Your task to perform on an android device: add a label to a message in the gmail app Image 0: 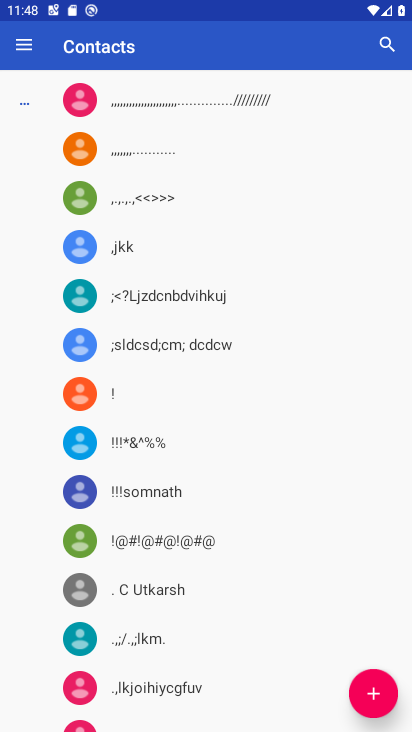
Step 0: press home button
Your task to perform on an android device: add a label to a message in the gmail app Image 1: 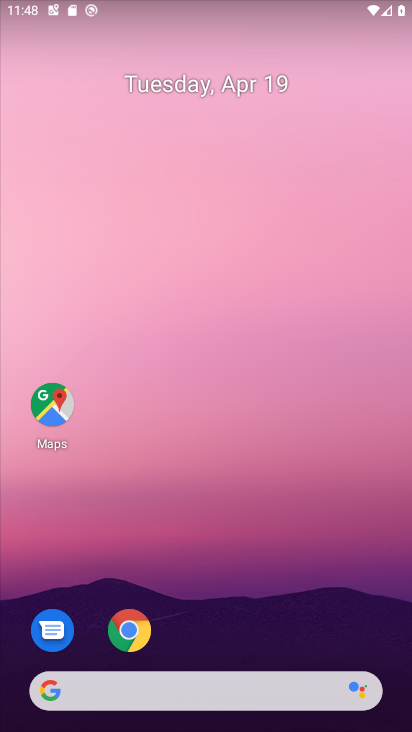
Step 1: drag from (284, 621) to (291, 208)
Your task to perform on an android device: add a label to a message in the gmail app Image 2: 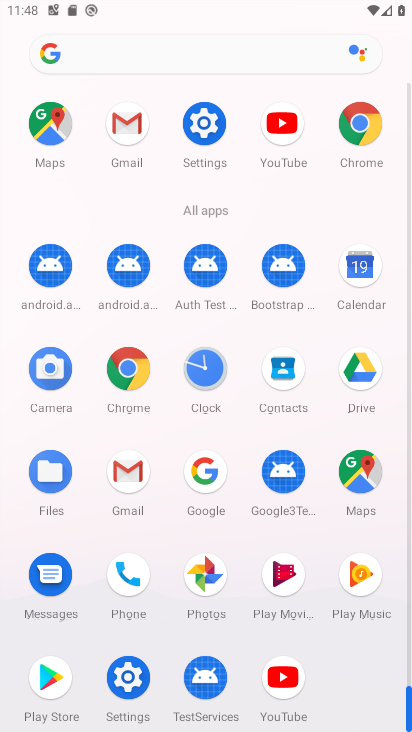
Step 2: click (120, 485)
Your task to perform on an android device: add a label to a message in the gmail app Image 3: 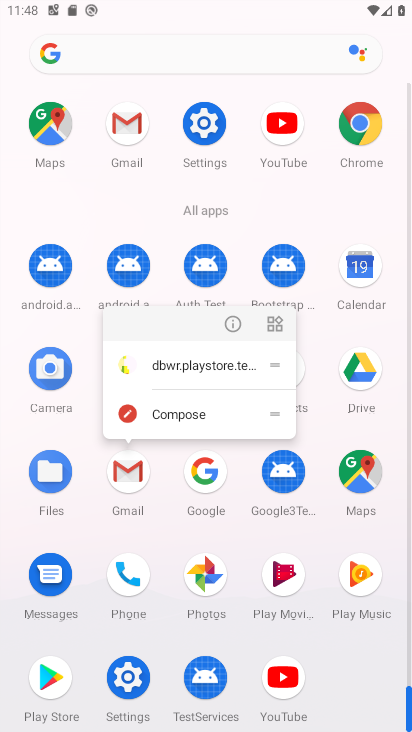
Step 3: click (131, 484)
Your task to perform on an android device: add a label to a message in the gmail app Image 4: 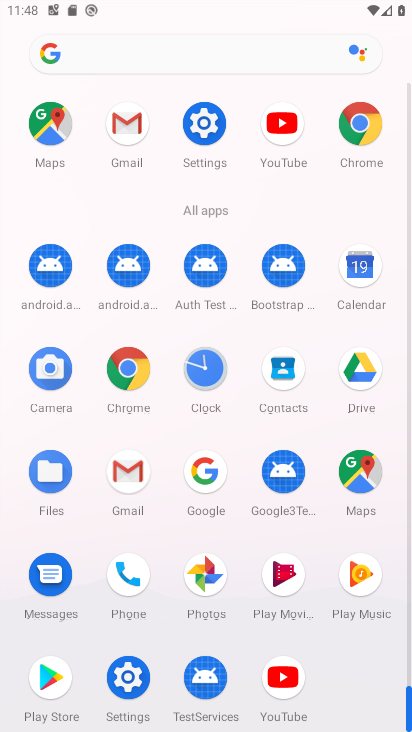
Step 4: click (131, 484)
Your task to perform on an android device: add a label to a message in the gmail app Image 5: 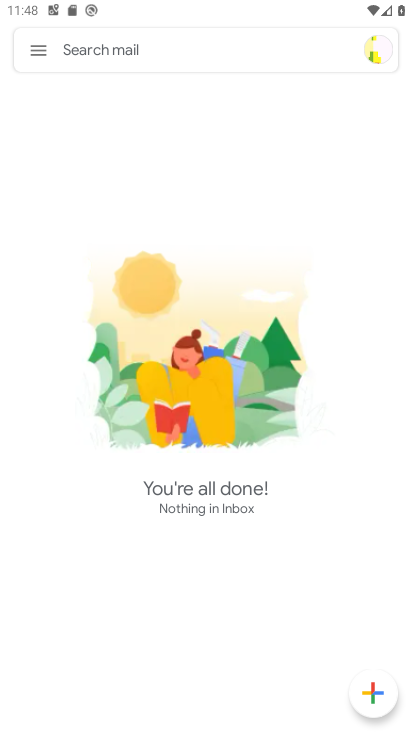
Step 5: click (131, 484)
Your task to perform on an android device: add a label to a message in the gmail app Image 6: 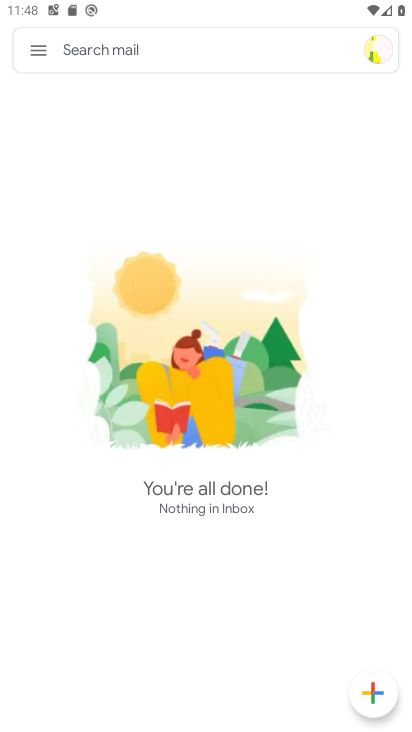
Step 6: task complete